Your task to perform on an android device: turn off airplane mode Image 0: 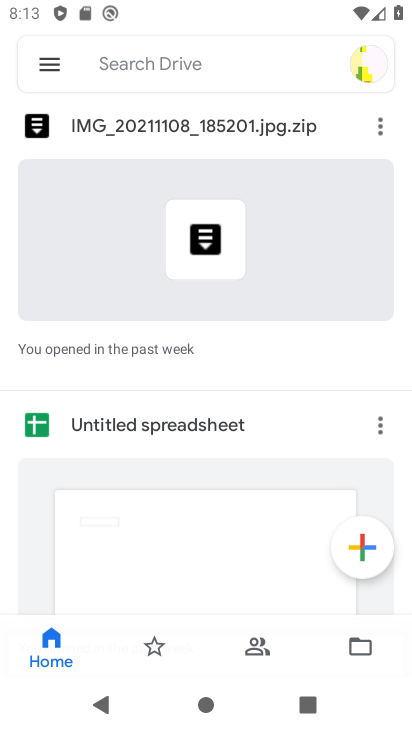
Step 0: press home button
Your task to perform on an android device: turn off airplane mode Image 1: 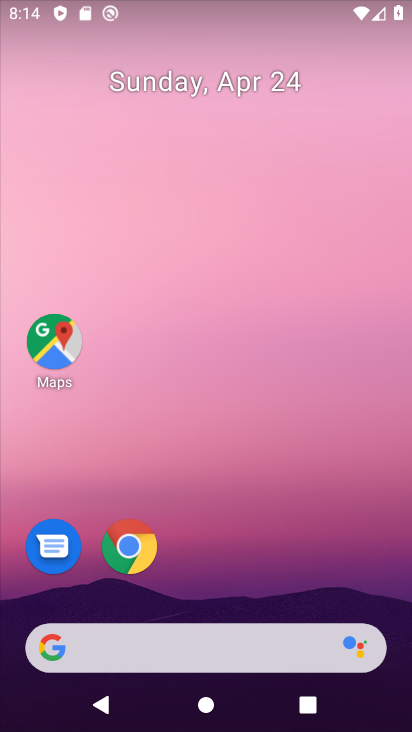
Step 1: drag from (294, 534) to (287, 265)
Your task to perform on an android device: turn off airplane mode Image 2: 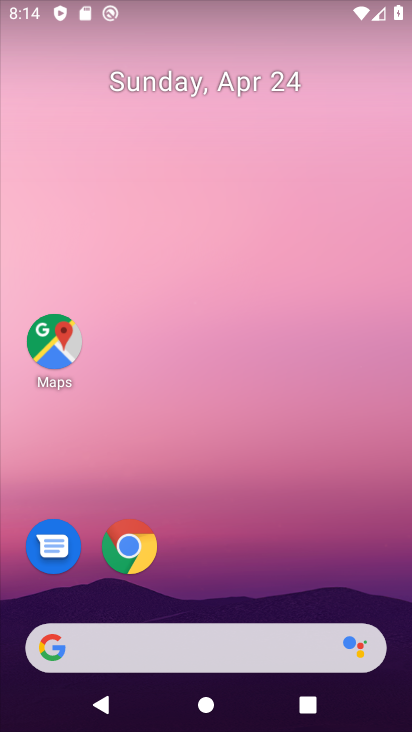
Step 2: drag from (220, 573) to (189, 281)
Your task to perform on an android device: turn off airplane mode Image 3: 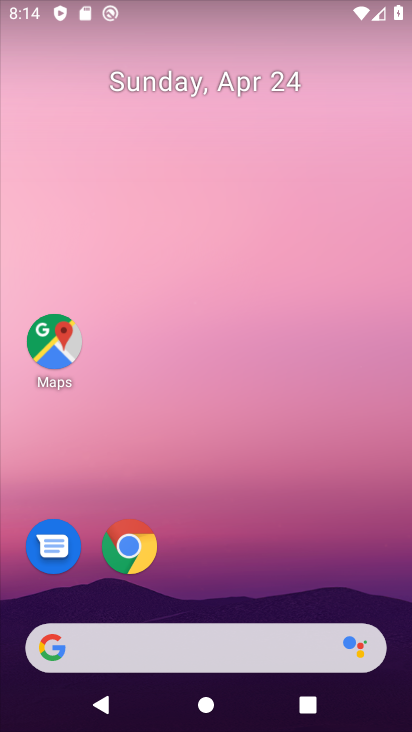
Step 3: drag from (254, 502) to (215, 169)
Your task to perform on an android device: turn off airplane mode Image 4: 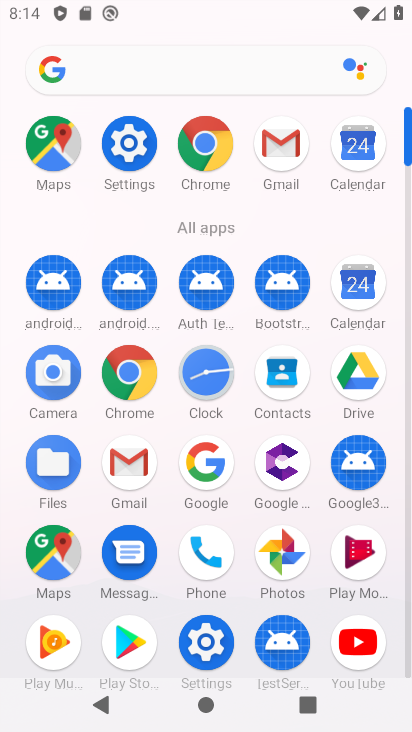
Step 4: click (132, 160)
Your task to perform on an android device: turn off airplane mode Image 5: 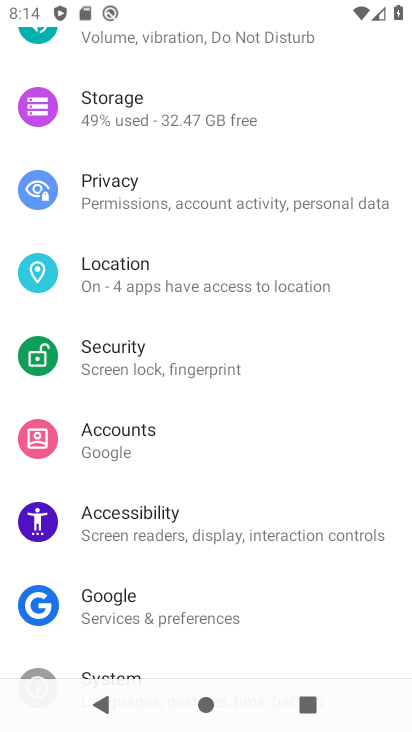
Step 5: drag from (210, 151) to (337, 332)
Your task to perform on an android device: turn off airplane mode Image 6: 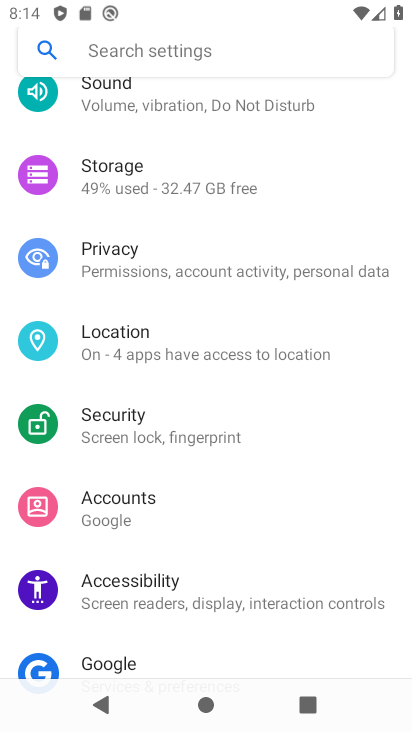
Step 6: drag from (254, 371) to (264, 592)
Your task to perform on an android device: turn off airplane mode Image 7: 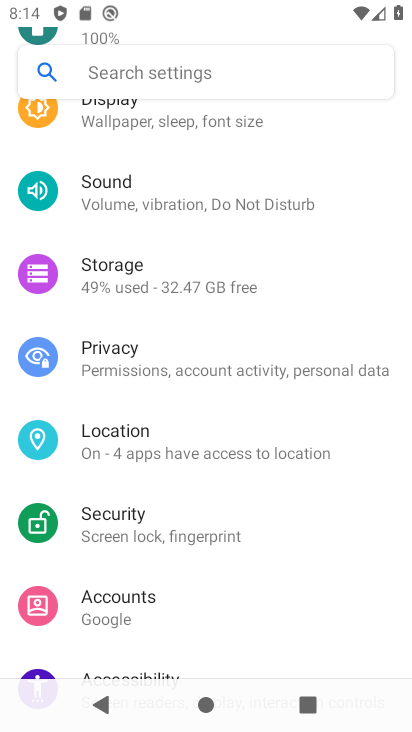
Step 7: drag from (254, 218) to (382, 647)
Your task to perform on an android device: turn off airplane mode Image 8: 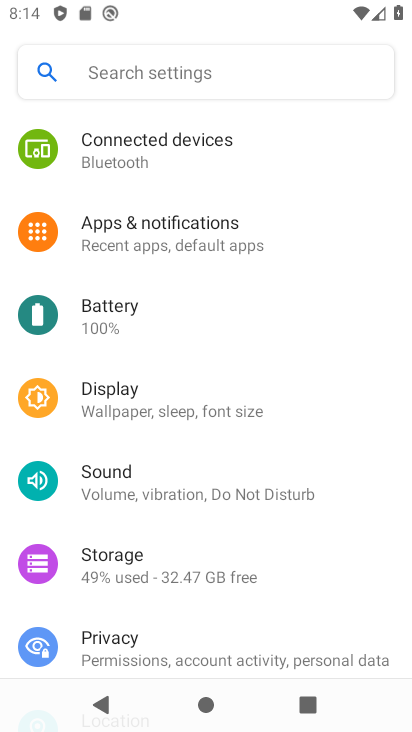
Step 8: drag from (257, 248) to (351, 473)
Your task to perform on an android device: turn off airplane mode Image 9: 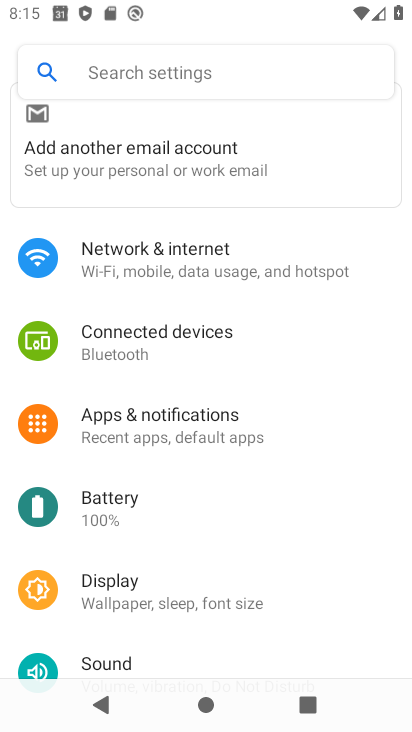
Step 9: click (281, 285)
Your task to perform on an android device: turn off airplane mode Image 10: 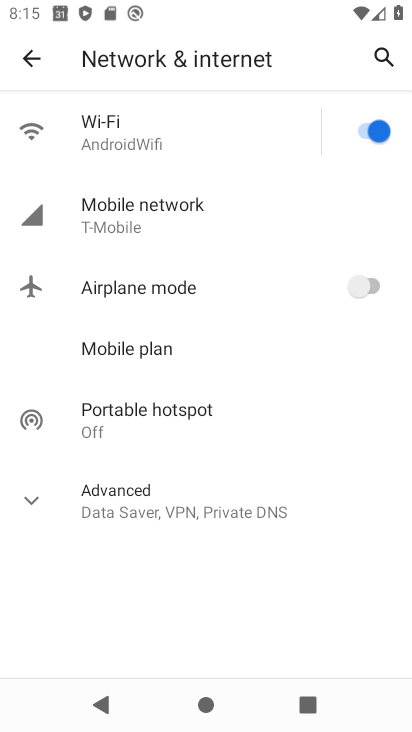
Step 10: click (219, 278)
Your task to perform on an android device: turn off airplane mode Image 11: 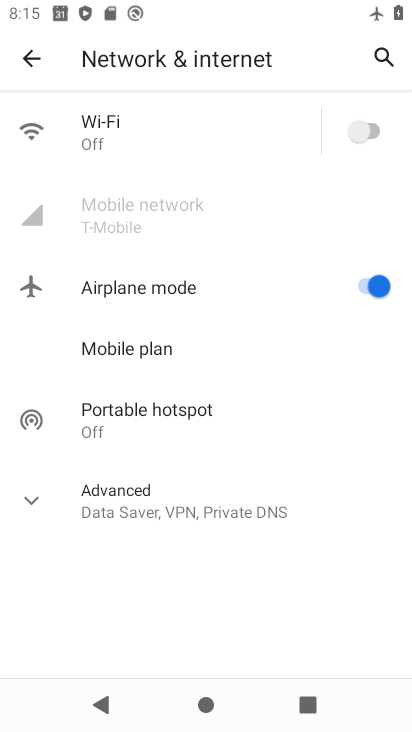
Step 11: click (305, 294)
Your task to perform on an android device: turn off airplane mode Image 12: 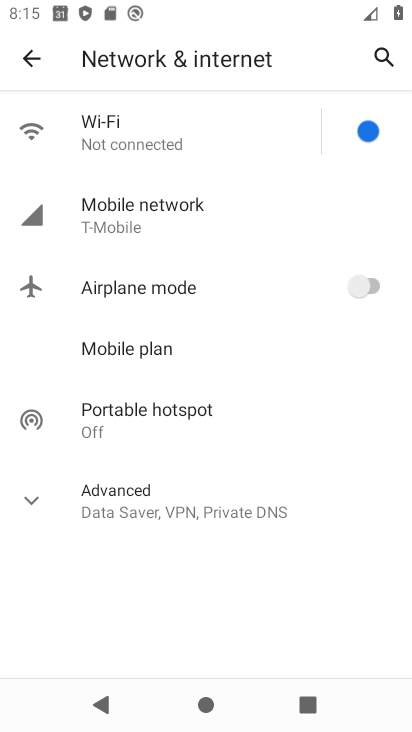
Step 12: task complete